Your task to perform on an android device: find which apps use the phone's location Image 0: 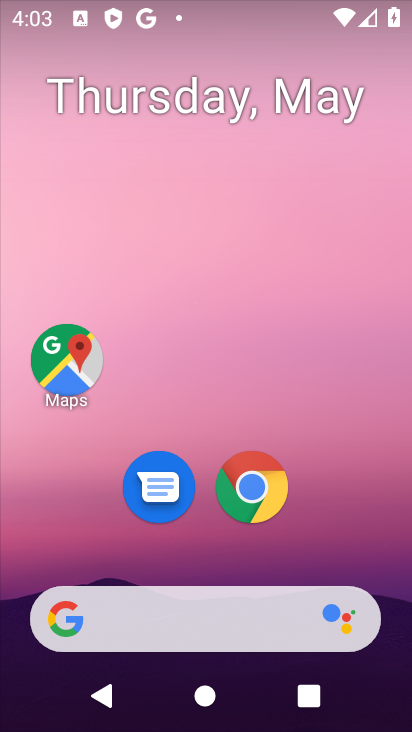
Step 0: drag from (200, 565) to (220, 128)
Your task to perform on an android device: find which apps use the phone's location Image 1: 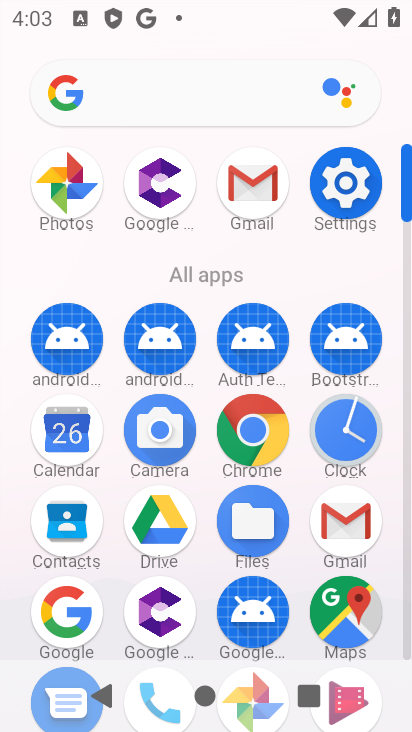
Step 1: click (328, 189)
Your task to perform on an android device: find which apps use the phone's location Image 2: 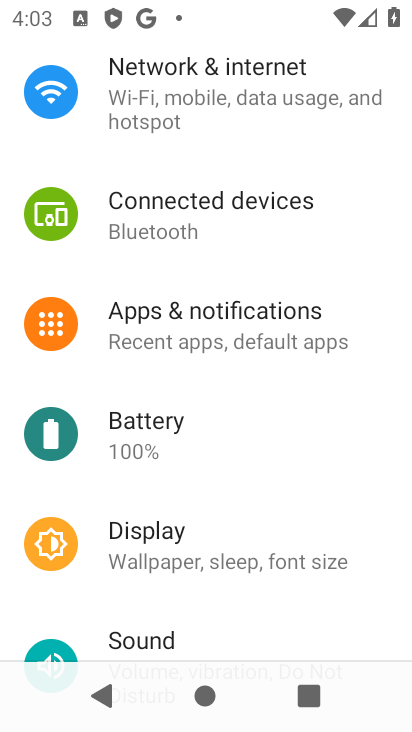
Step 2: drag from (222, 597) to (259, 265)
Your task to perform on an android device: find which apps use the phone's location Image 3: 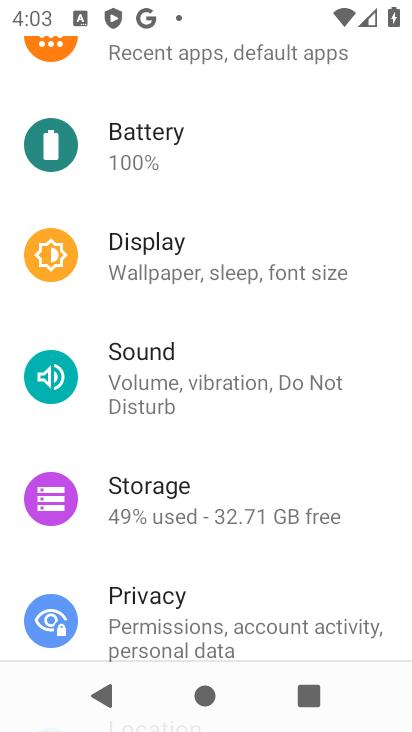
Step 3: drag from (231, 520) to (244, 244)
Your task to perform on an android device: find which apps use the phone's location Image 4: 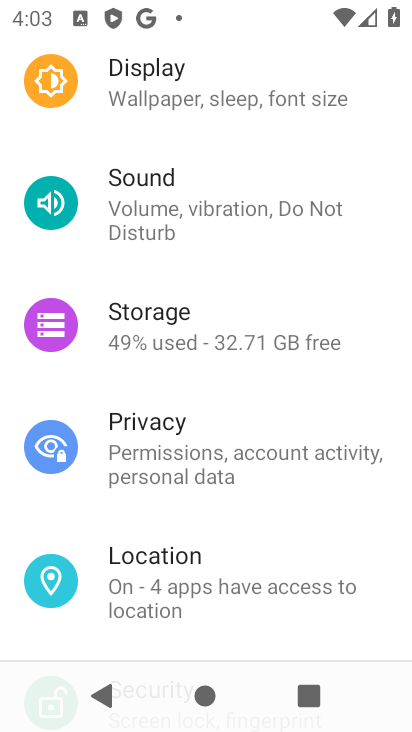
Step 4: click (234, 564)
Your task to perform on an android device: find which apps use the phone's location Image 5: 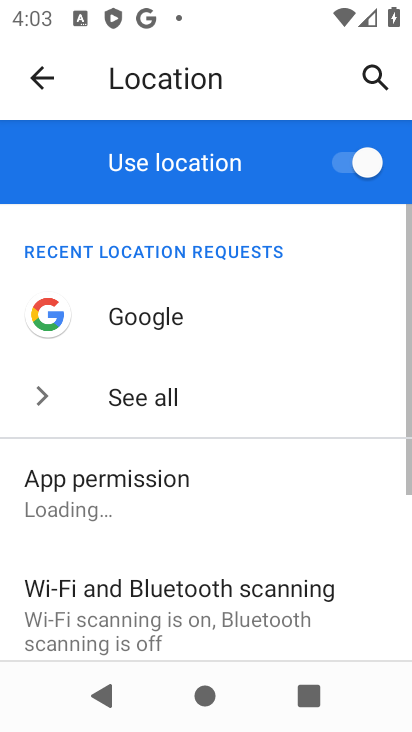
Step 5: click (183, 516)
Your task to perform on an android device: find which apps use the phone's location Image 6: 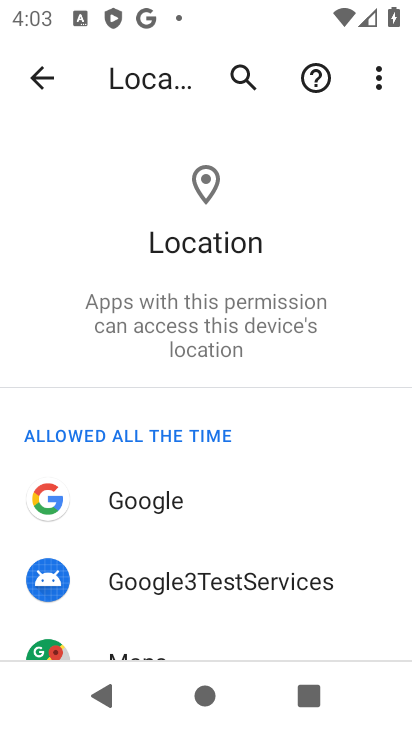
Step 6: task complete